Your task to perform on an android device: Open maps Image 0: 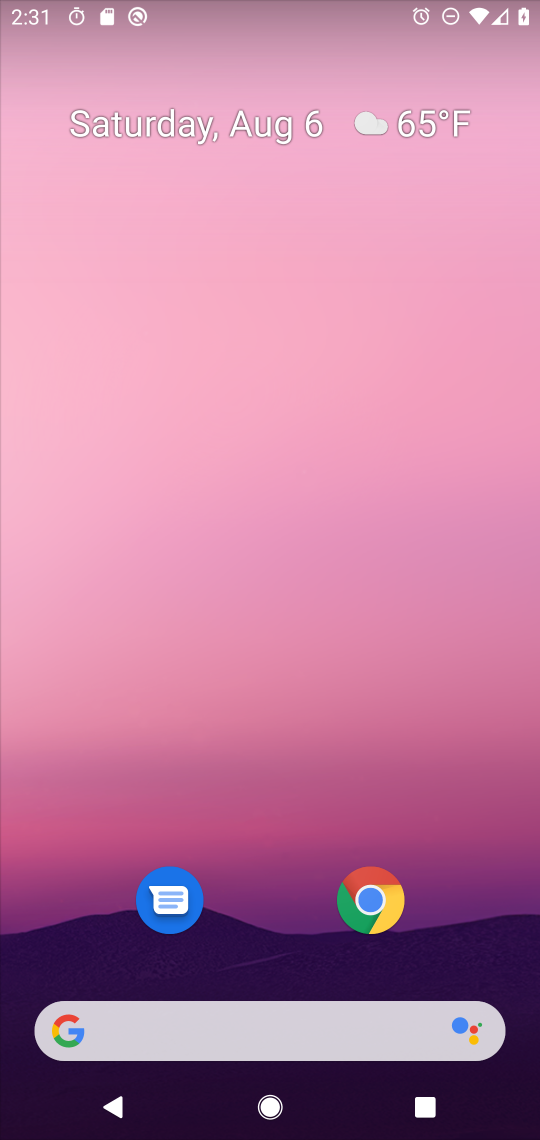
Step 0: drag from (293, 976) to (274, 182)
Your task to perform on an android device: Open maps Image 1: 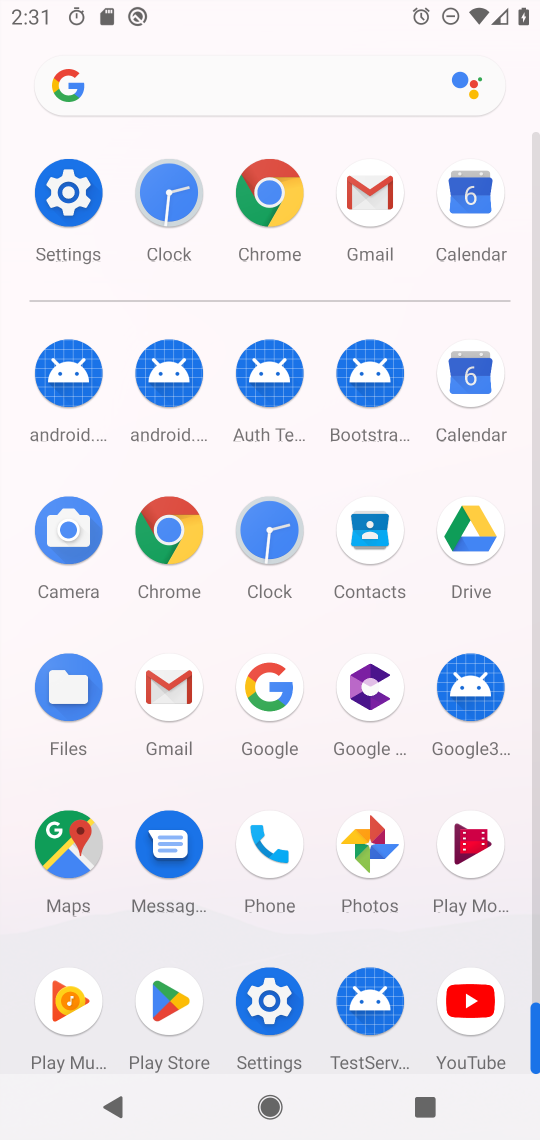
Step 1: click (63, 829)
Your task to perform on an android device: Open maps Image 2: 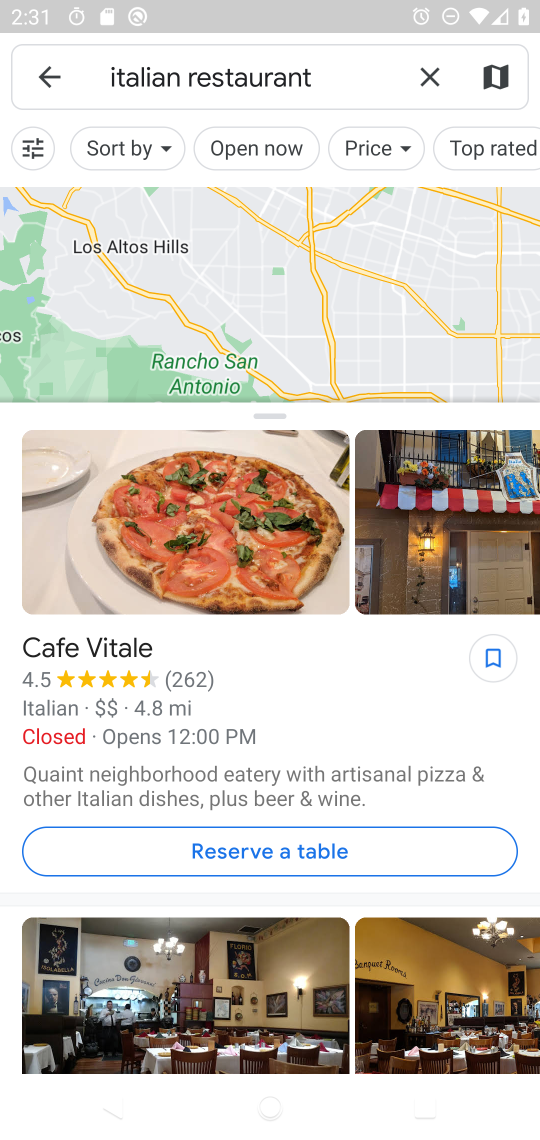
Step 2: task complete